Your task to perform on an android device: Show me the alarms in the clock app Image 0: 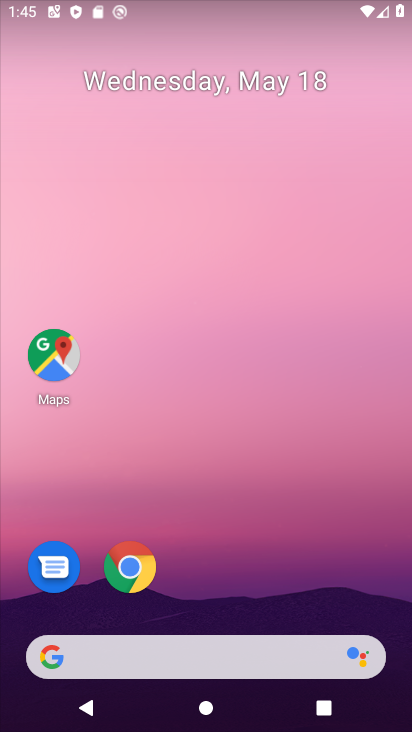
Step 0: drag from (263, 513) to (291, 124)
Your task to perform on an android device: Show me the alarms in the clock app Image 1: 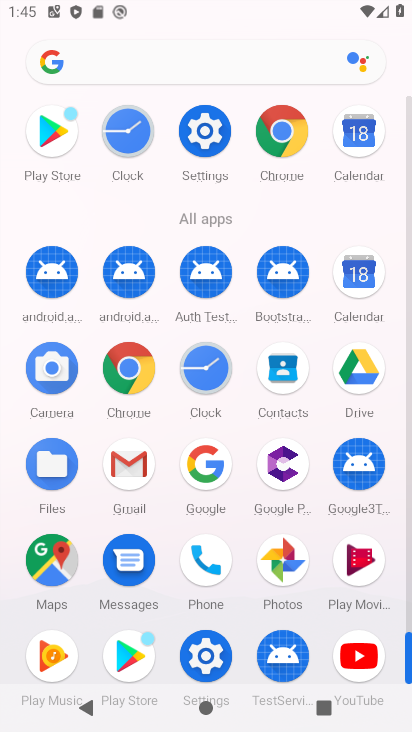
Step 1: click (130, 133)
Your task to perform on an android device: Show me the alarms in the clock app Image 2: 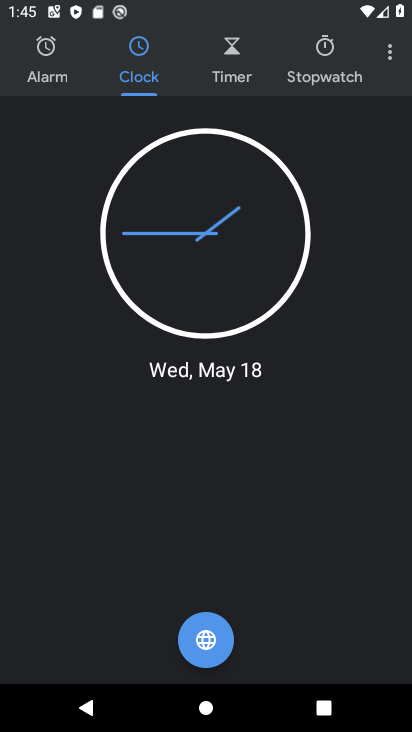
Step 2: drag from (387, 52) to (309, 673)
Your task to perform on an android device: Show me the alarms in the clock app Image 3: 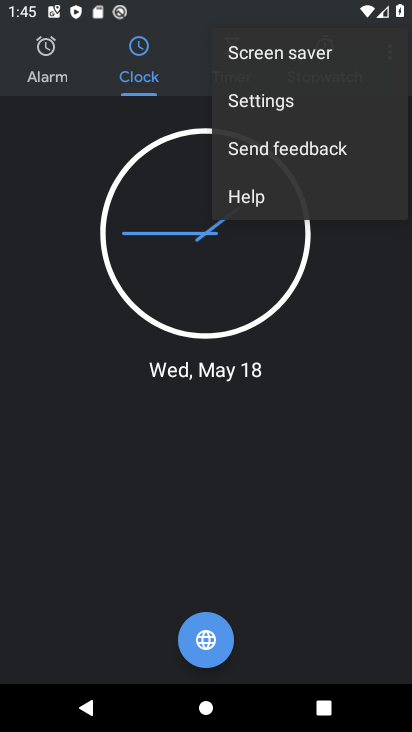
Step 3: click (322, 632)
Your task to perform on an android device: Show me the alarms in the clock app Image 4: 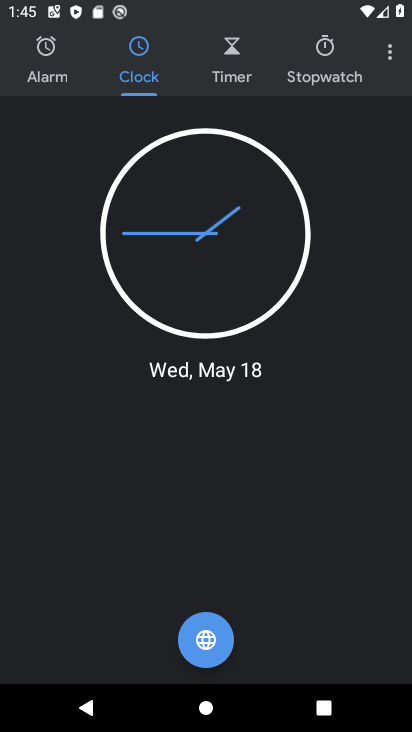
Step 4: click (49, 49)
Your task to perform on an android device: Show me the alarms in the clock app Image 5: 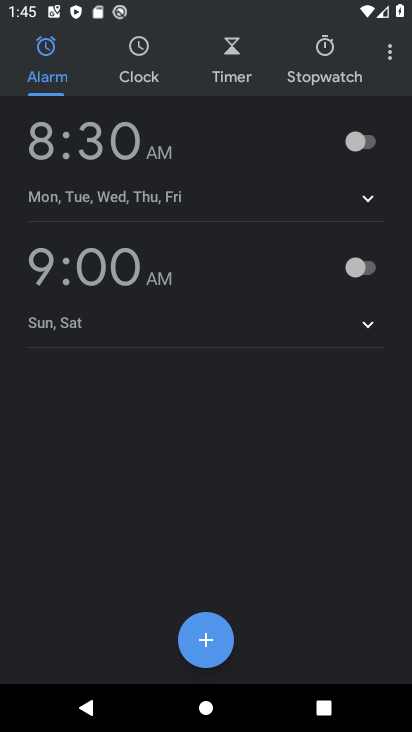
Step 5: task complete